Your task to perform on an android device: install app "ZOOM Cloud Meetings" Image 0: 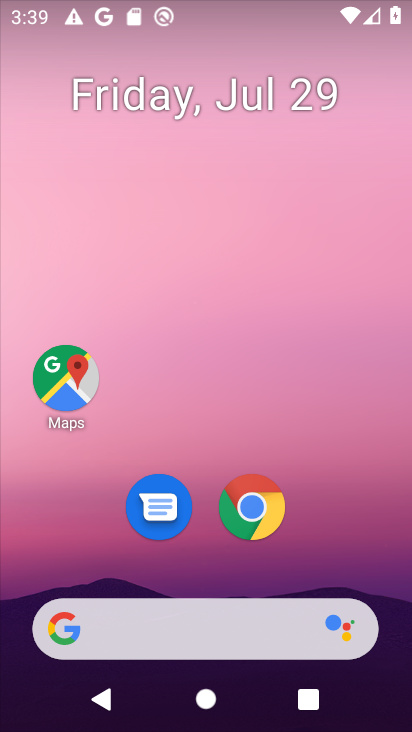
Step 0: click (283, 625)
Your task to perform on an android device: install app "ZOOM Cloud Meetings" Image 1: 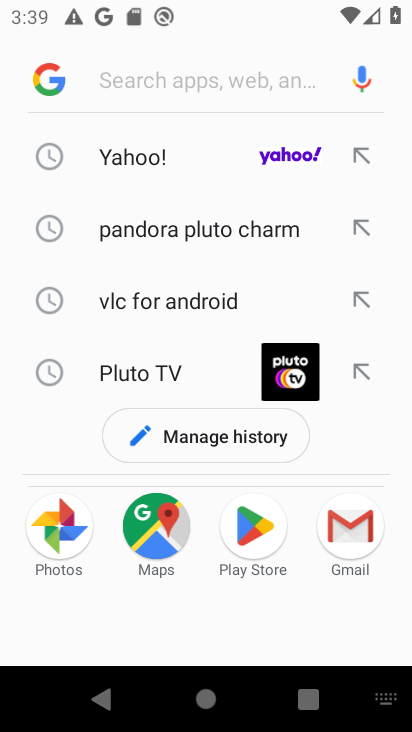
Step 1: type "zoom "
Your task to perform on an android device: install app "ZOOM Cloud Meetings" Image 2: 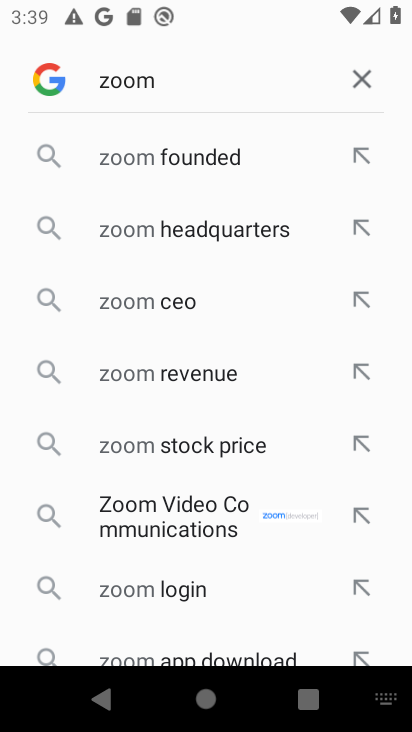
Step 2: click (188, 281)
Your task to perform on an android device: install app "ZOOM Cloud Meetings" Image 3: 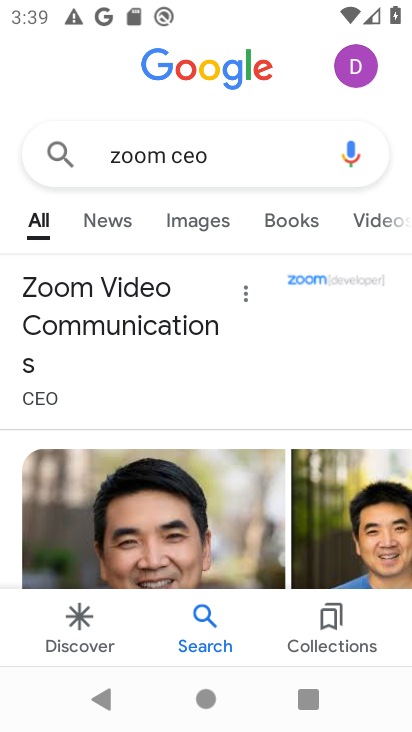
Step 3: task complete